Your task to perform on an android device: What's the weather? Image 0: 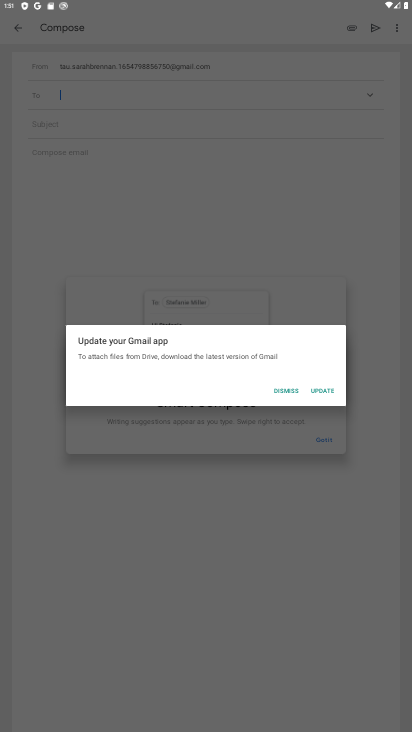
Step 0: press home button
Your task to perform on an android device: What's the weather? Image 1: 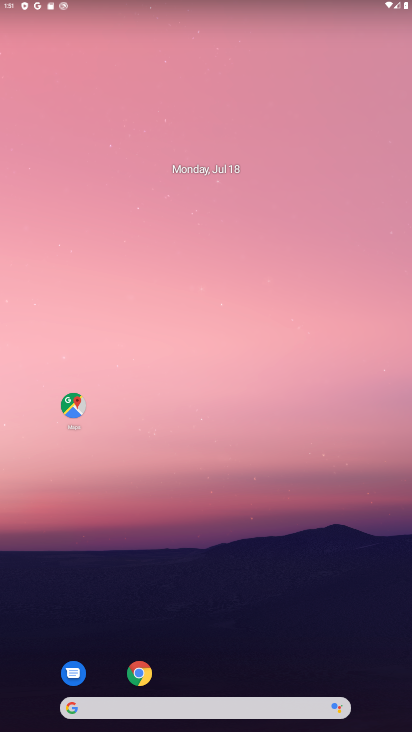
Step 1: drag from (222, 707) to (225, 172)
Your task to perform on an android device: What's the weather? Image 2: 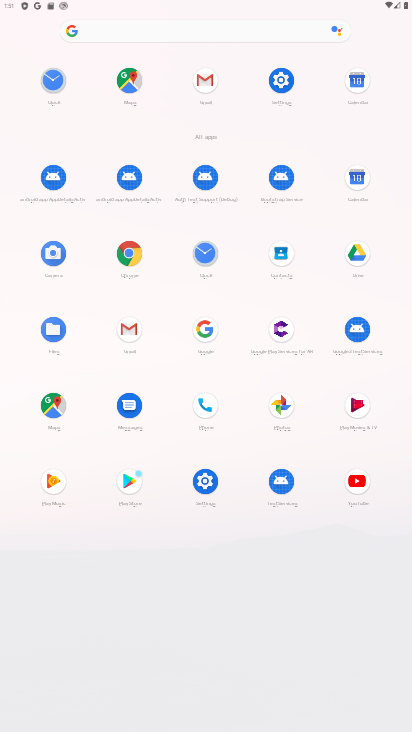
Step 2: click (203, 328)
Your task to perform on an android device: What's the weather? Image 3: 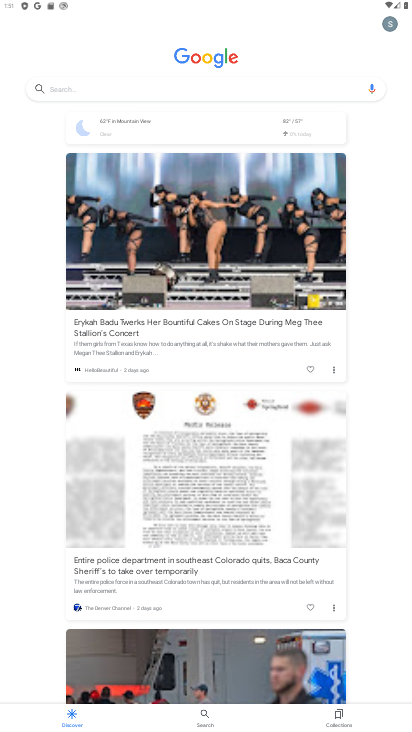
Step 3: click (156, 125)
Your task to perform on an android device: What's the weather? Image 4: 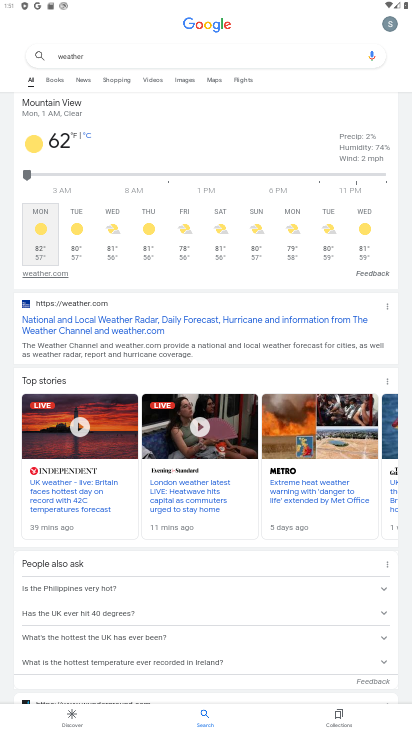
Step 4: task complete